Your task to perform on an android device: Search for "panasonic triple a" on costco.com, select the first entry, and add it to the cart. Image 0: 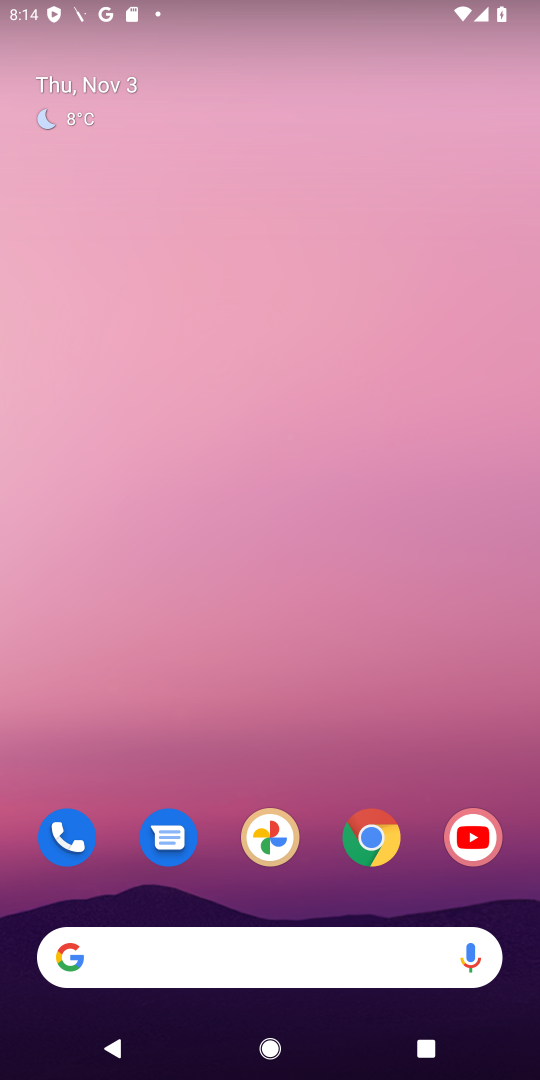
Step 0: click (371, 840)
Your task to perform on an android device: Search for "panasonic triple a" on costco.com, select the first entry, and add it to the cart. Image 1: 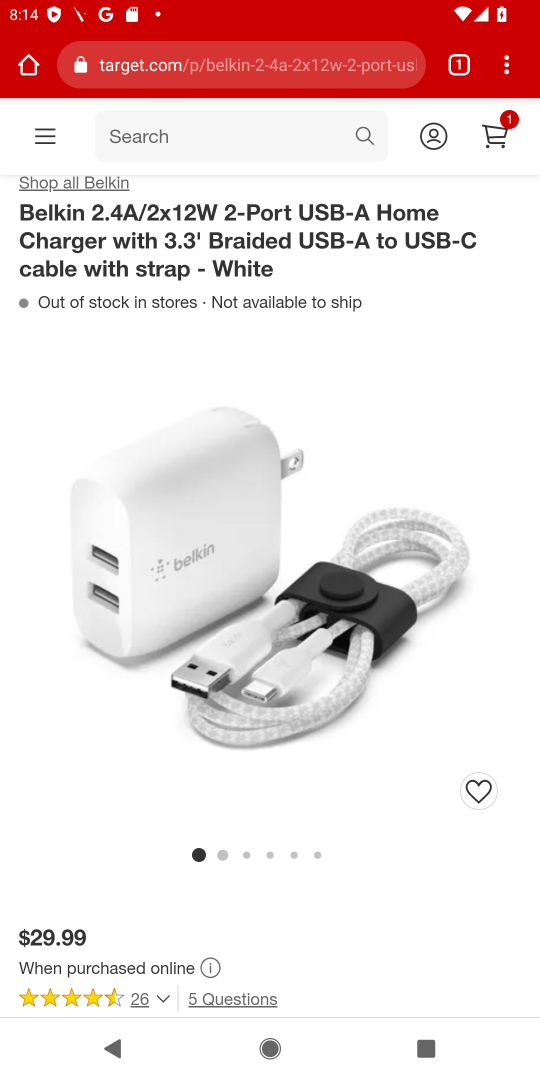
Step 1: click (265, 62)
Your task to perform on an android device: Search for "panasonic triple a" on costco.com, select the first entry, and add it to the cart. Image 2: 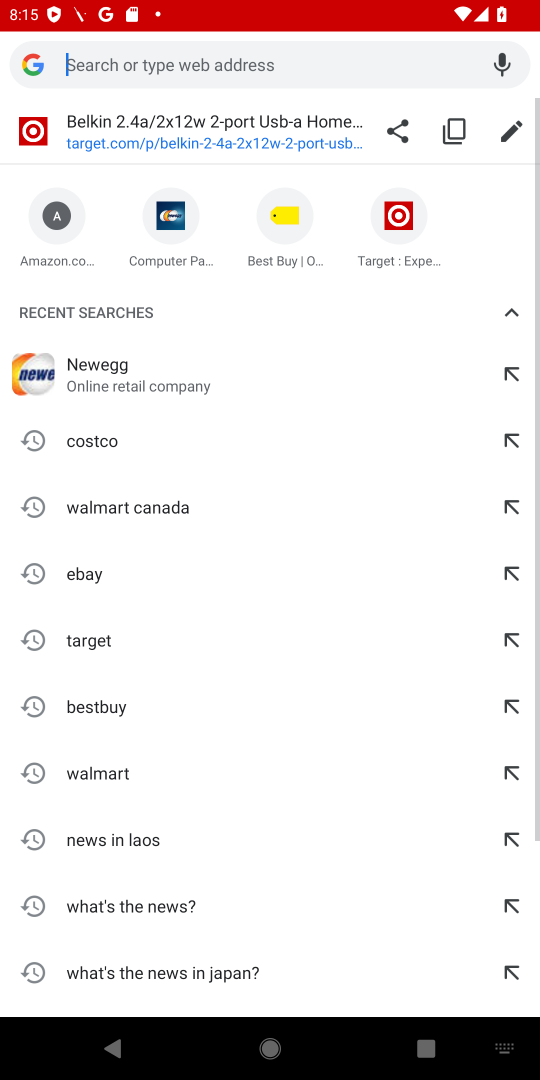
Step 2: click (62, 447)
Your task to perform on an android device: Search for "panasonic triple a" on costco.com, select the first entry, and add it to the cart. Image 3: 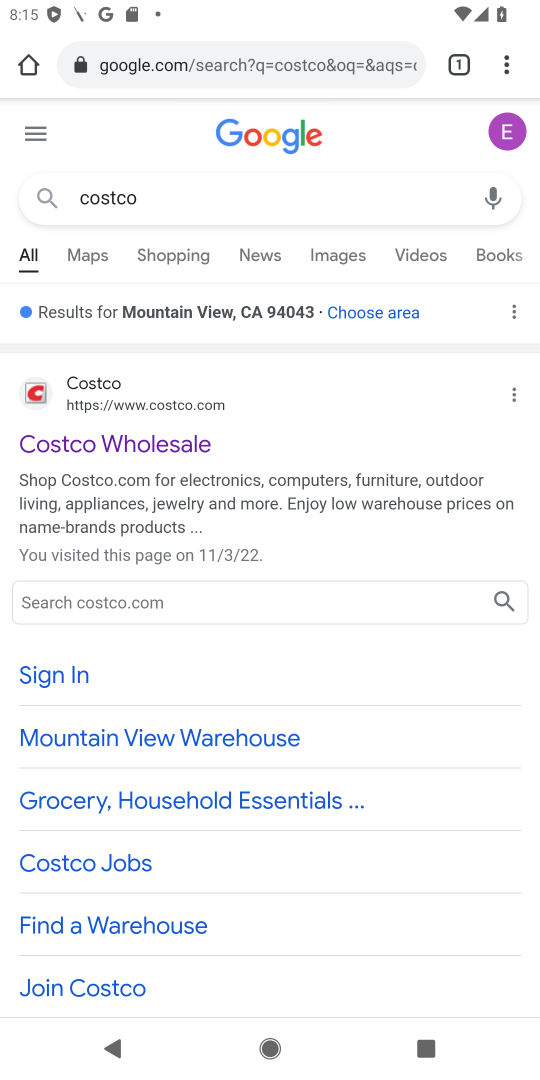
Step 3: click (107, 442)
Your task to perform on an android device: Search for "panasonic triple a" on costco.com, select the first entry, and add it to the cart. Image 4: 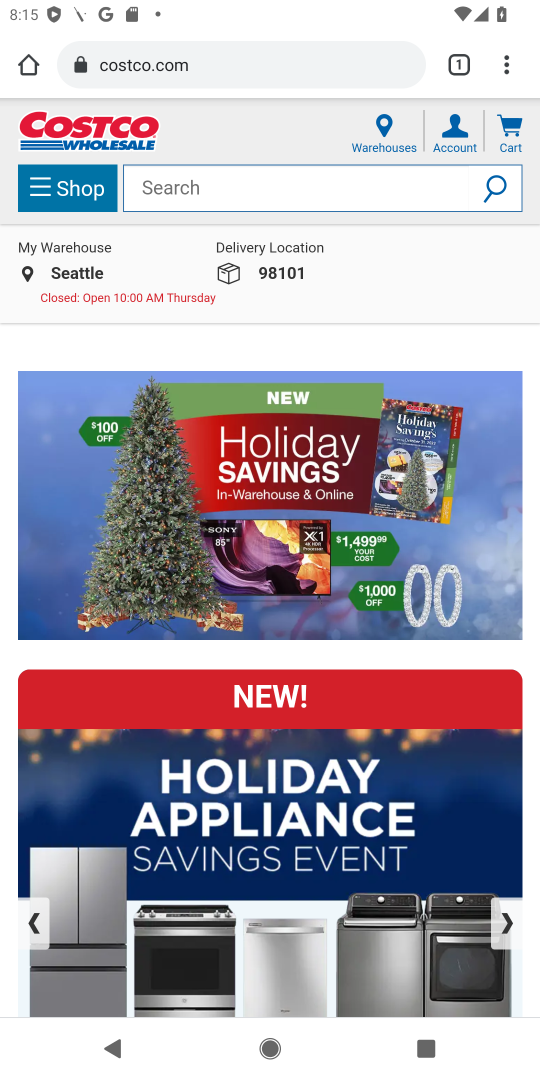
Step 4: type "panasonic triple a"
Your task to perform on an android device: Search for "panasonic triple a" on costco.com, select the first entry, and add it to the cart. Image 5: 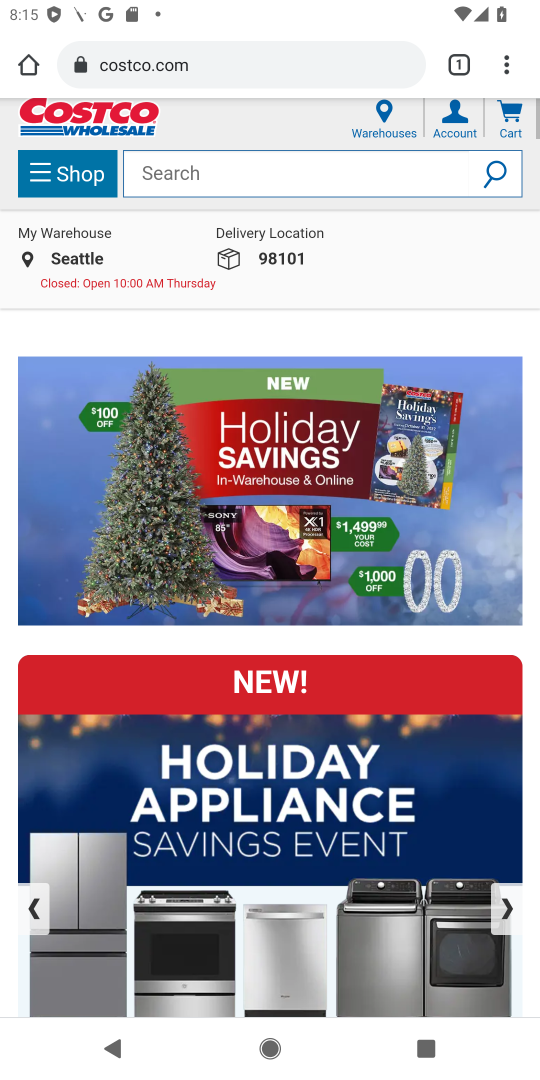
Step 5: press enter
Your task to perform on an android device: Search for "panasonic triple a" on costco.com, select the first entry, and add it to the cart. Image 6: 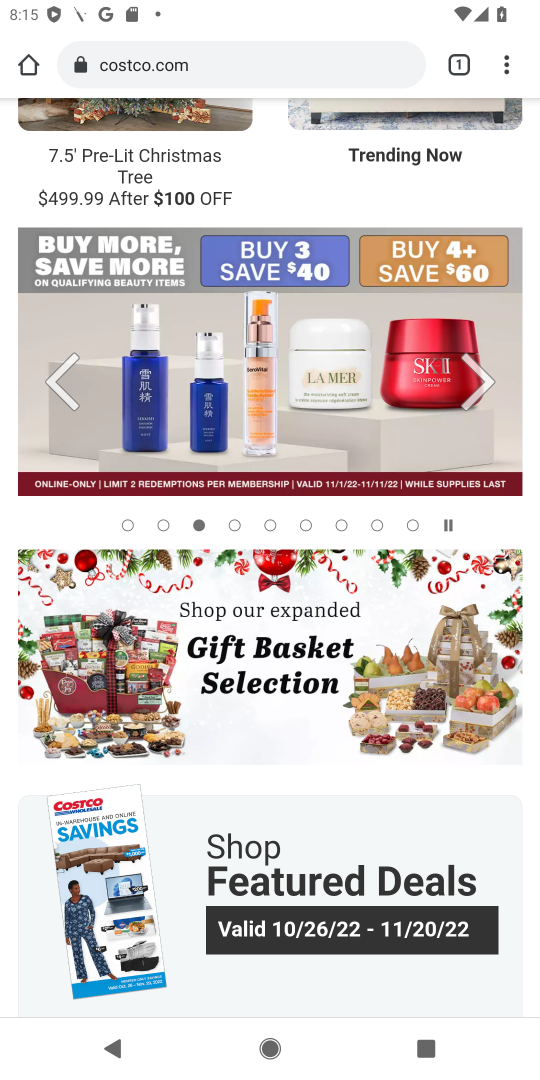
Step 6: drag from (414, 170) to (318, 911)
Your task to perform on an android device: Search for "panasonic triple a" on costco.com, select the first entry, and add it to the cart. Image 7: 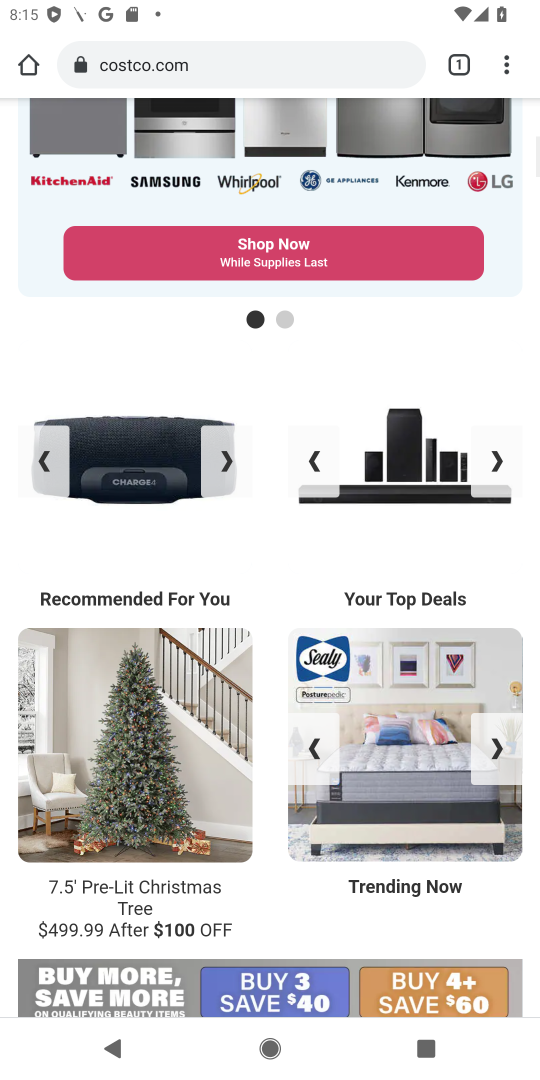
Step 7: drag from (291, 381) to (240, 729)
Your task to perform on an android device: Search for "panasonic triple a" on costco.com, select the first entry, and add it to the cart. Image 8: 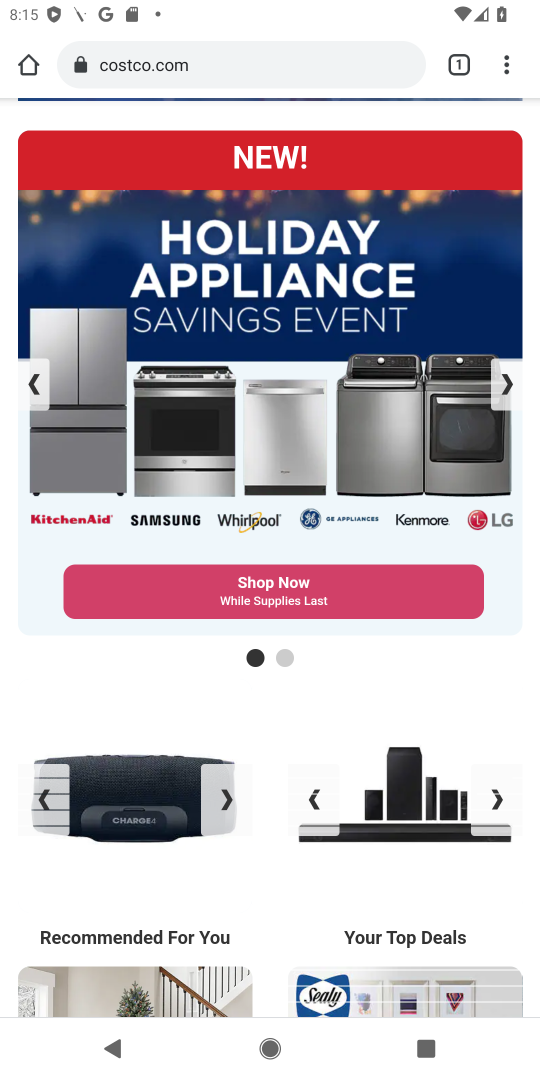
Step 8: drag from (313, 391) to (287, 872)
Your task to perform on an android device: Search for "panasonic triple a" on costco.com, select the first entry, and add it to the cart. Image 9: 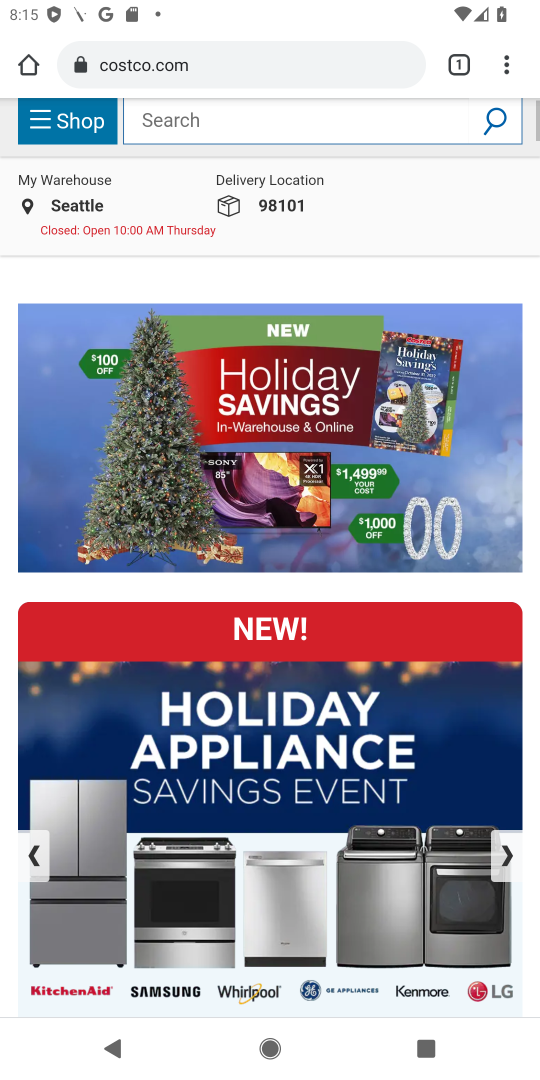
Step 9: drag from (331, 415) to (331, 822)
Your task to perform on an android device: Search for "panasonic triple a" on costco.com, select the first entry, and add it to the cart. Image 10: 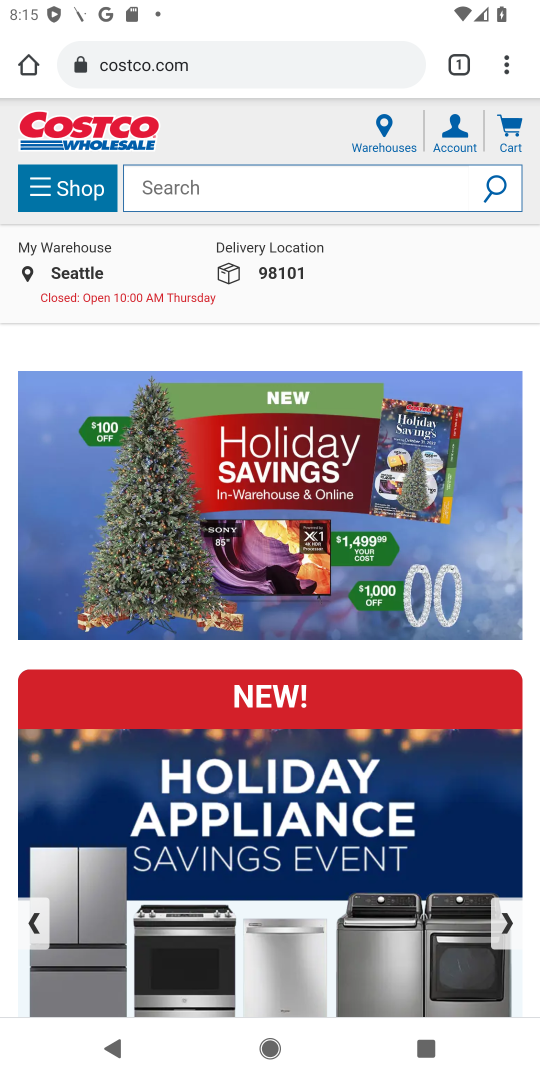
Step 10: click (208, 180)
Your task to perform on an android device: Search for "panasonic triple a" on costco.com, select the first entry, and add it to the cart. Image 11: 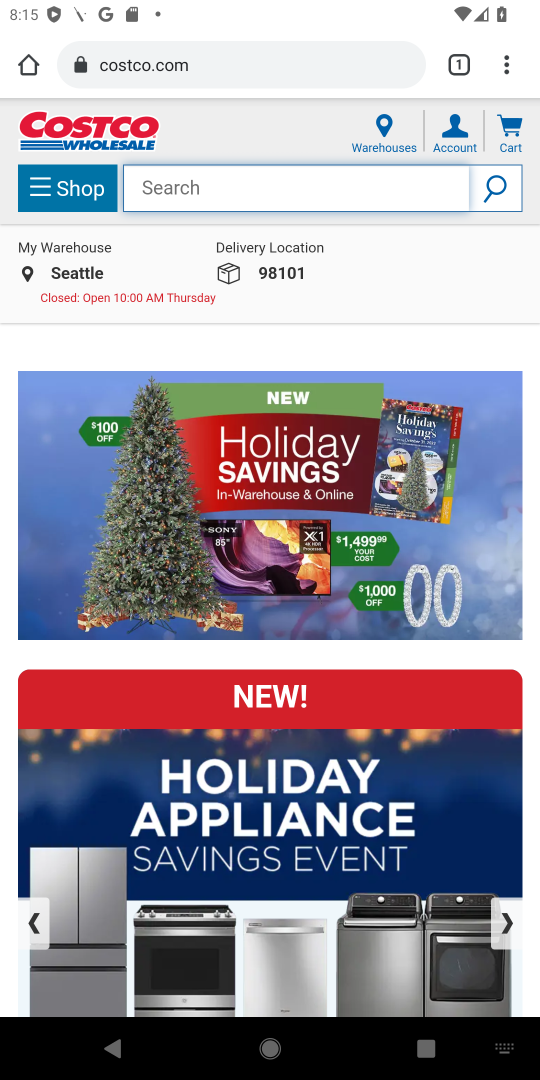
Step 11: type "panasonic triple a"
Your task to perform on an android device: Search for "panasonic triple a" on costco.com, select the first entry, and add it to the cart. Image 12: 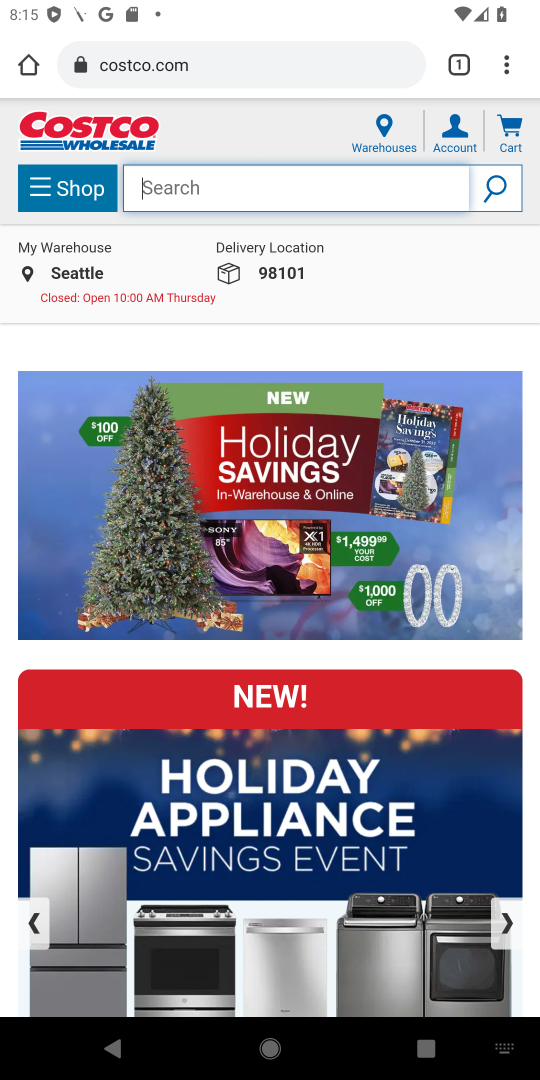
Step 12: press enter
Your task to perform on an android device: Search for "panasonic triple a" on costco.com, select the first entry, and add it to the cart. Image 13: 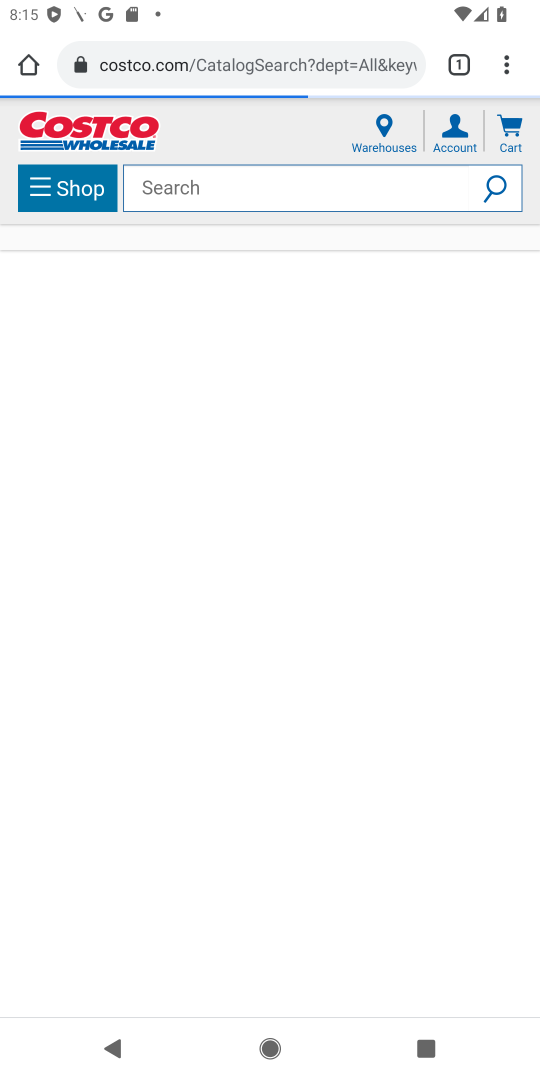
Step 13: press enter
Your task to perform on an android device: Search for "panasonic triple a" on costco.com, select the first entry, and add it to the cart. Image 14: 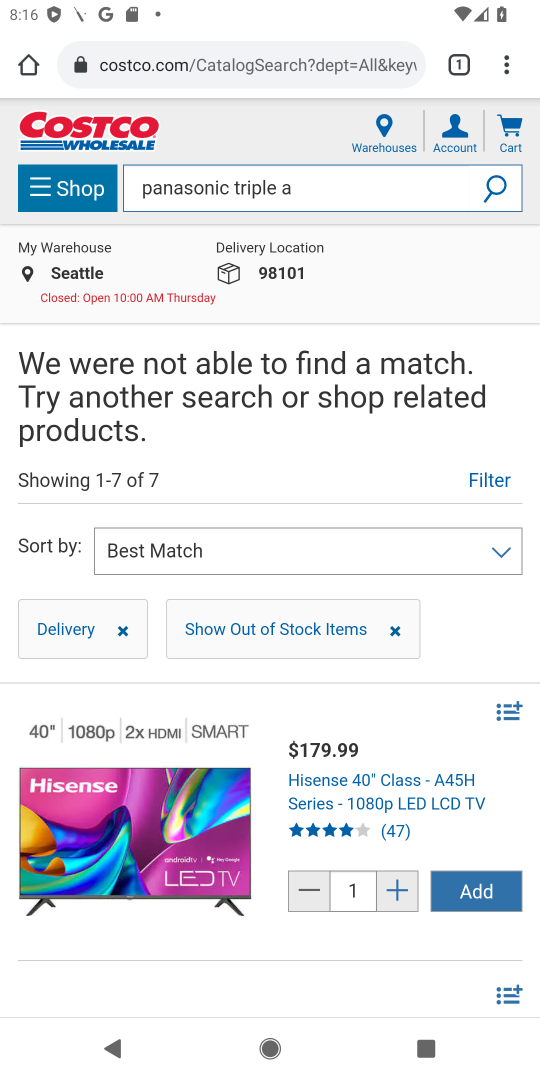
Step 14: task complete